Your task to perform on an android device: Open network settings Image 0: 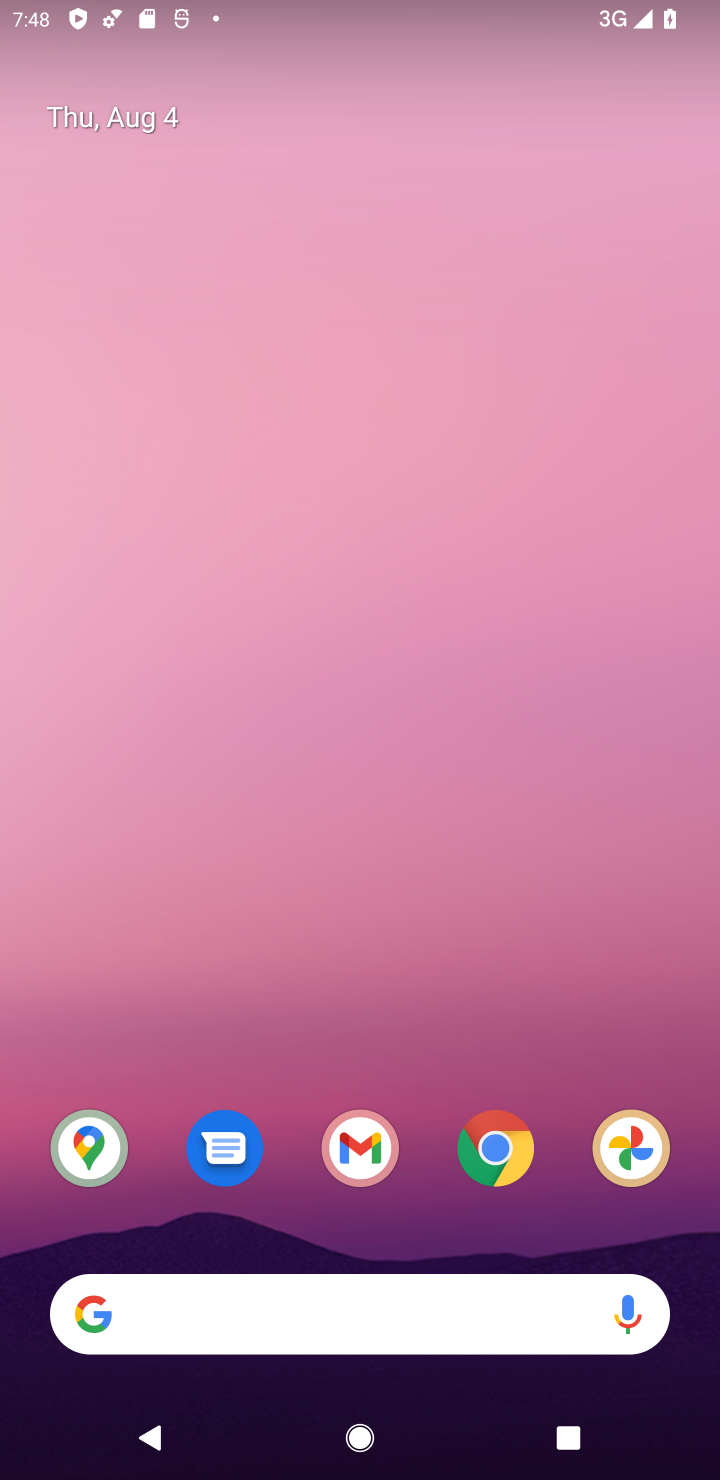
Step 0: drag from (439, 1223) to (385, 461)
Your task to perform on an android device: Open network settings Image 1: 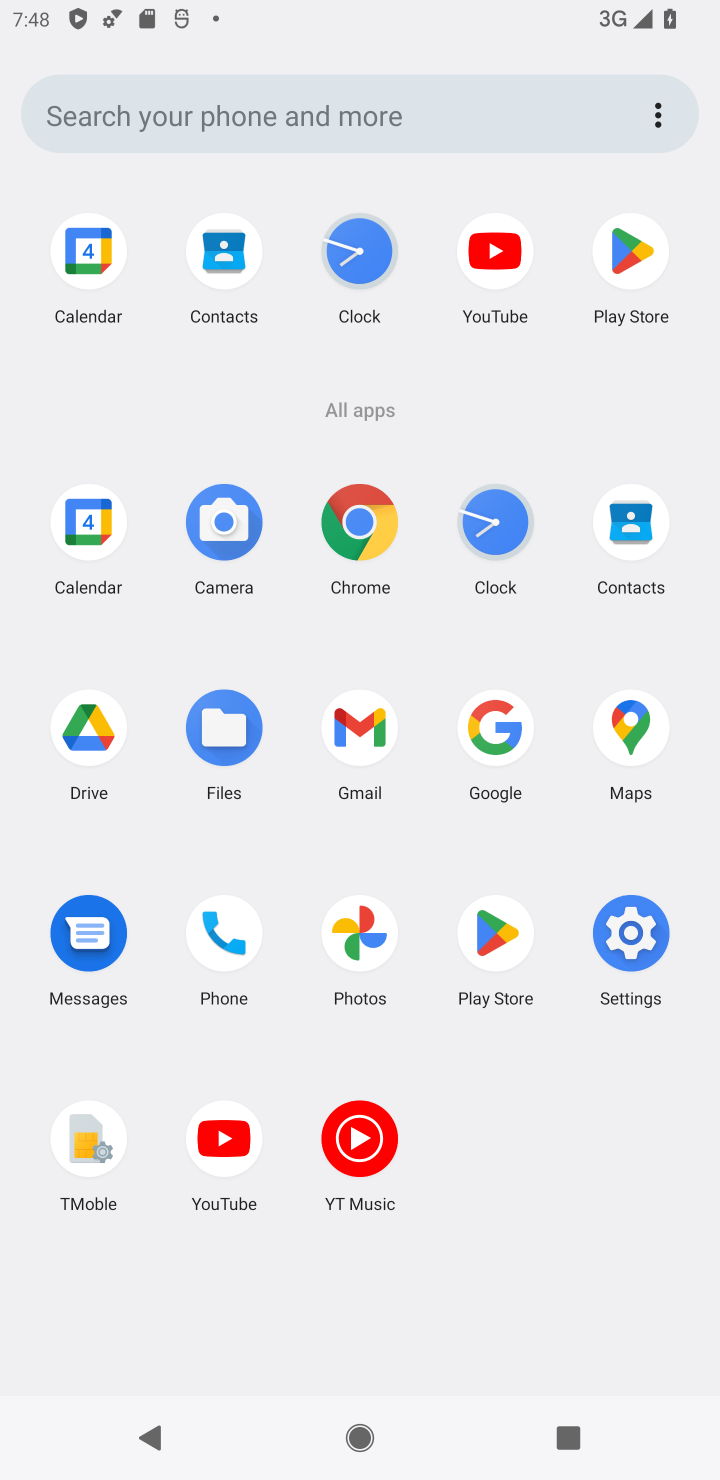
Step 1: click (620, 930)
Your task to perform on an android device: Open network settings Image 2: 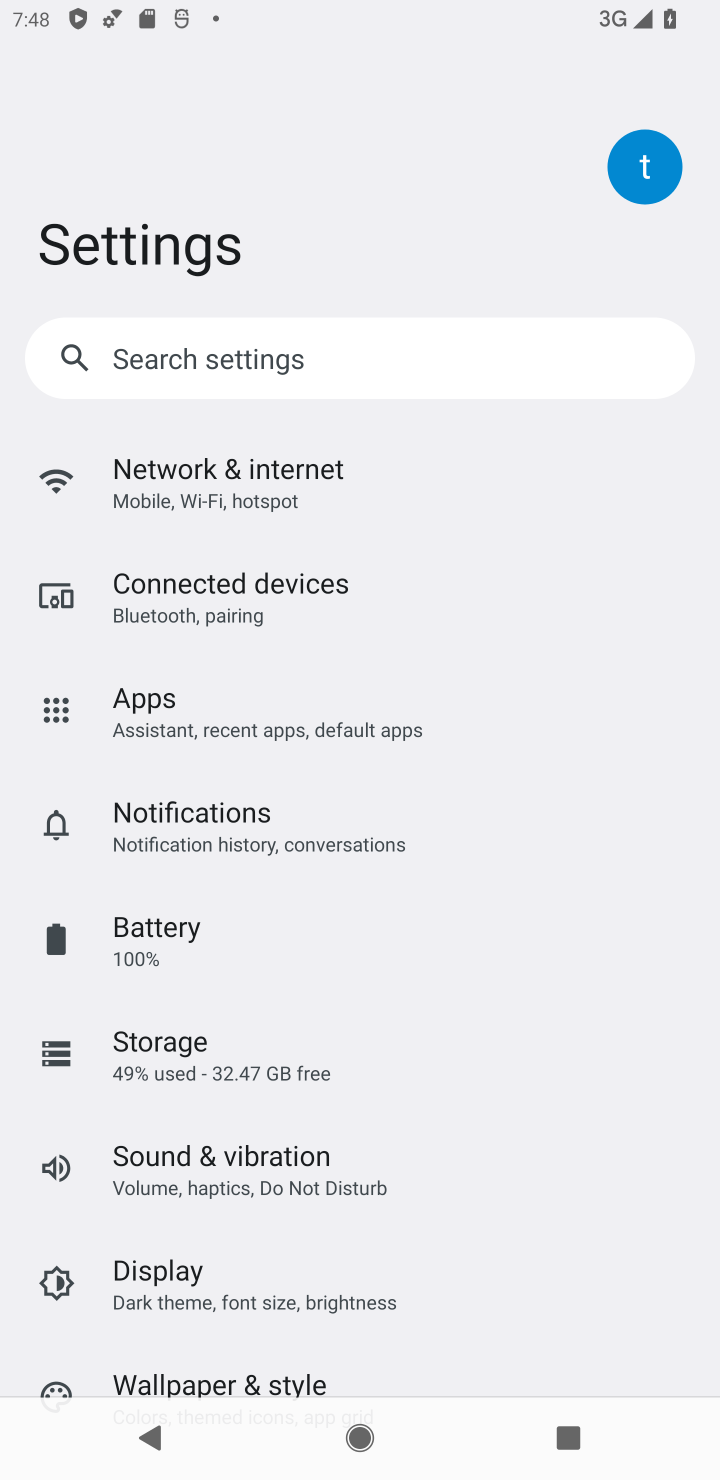
Step 2: click (339, 489)
Your task to perform on an android device: Open network settings Image 3: 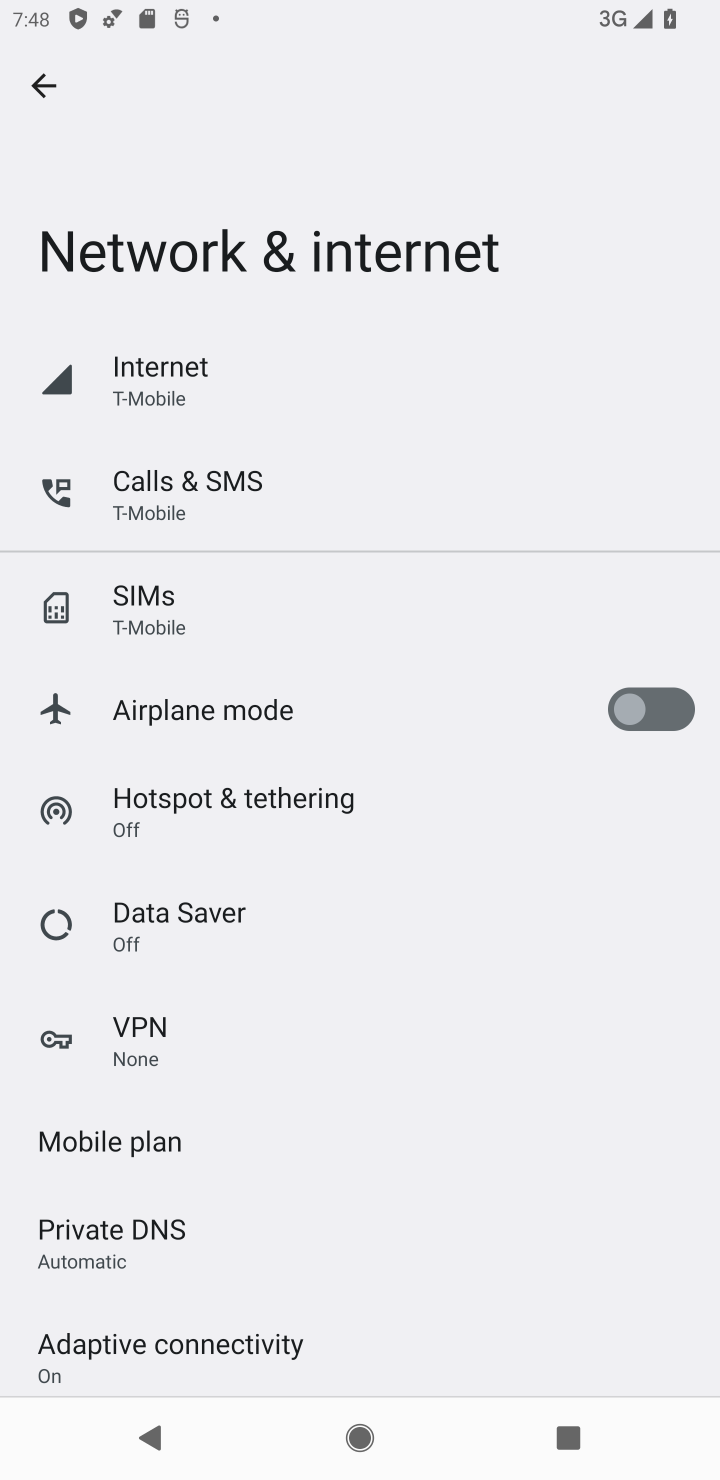
Step 3: task complete